Your task to perform on an android device: Open the phone app and click the voicemail tab. Image 0: 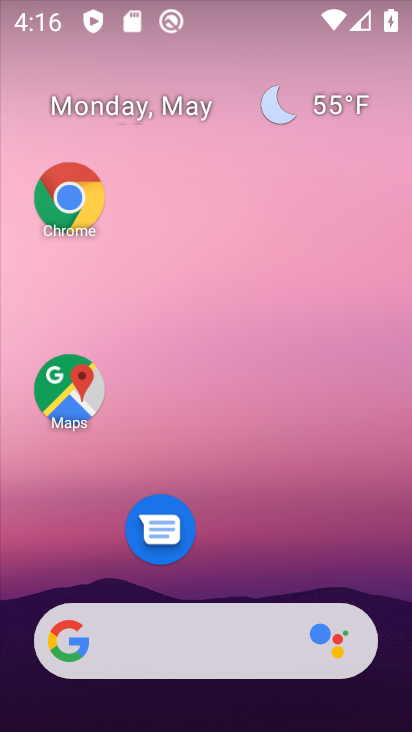
Step 0: drag from (239, 604) to (319, 90)
Your task to perform on an android device: Open the phone app and click the voicemail tab. Image 1: 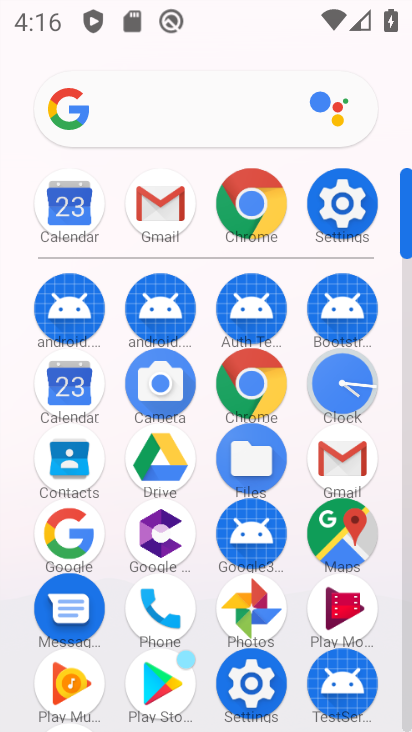
Step 1: click (175, 616)
Your task to perform on an android device: Open the phone app and click the voicemail tab. Image 2: 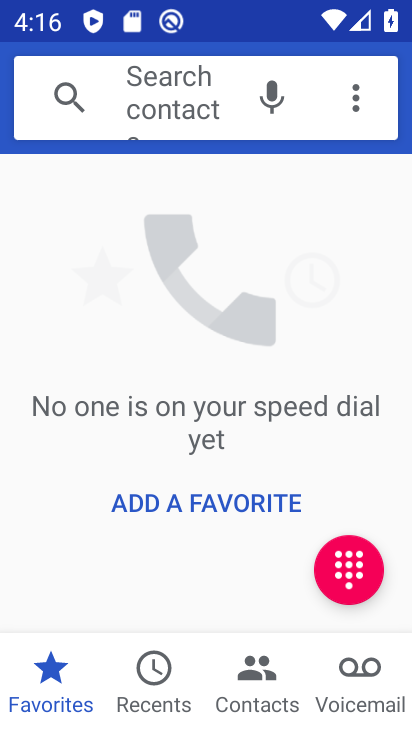
Step 2: click (350, 689)
Your task to perform on an android device: Open the phone app and click the voicemail tab. Image 3: 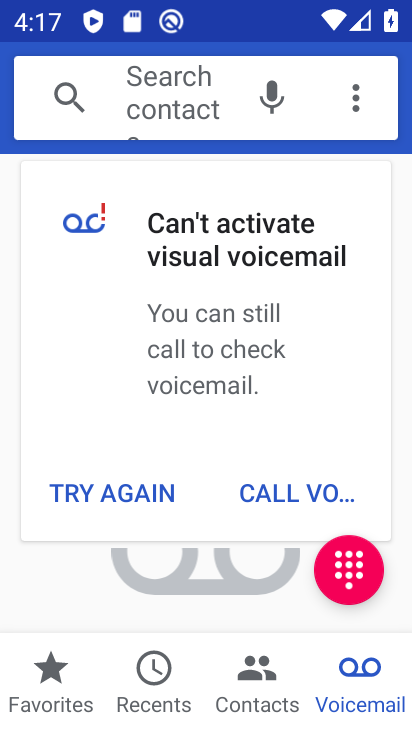
Step 3: task complete